Your task to perform on an android device: Open display settings Image 0: 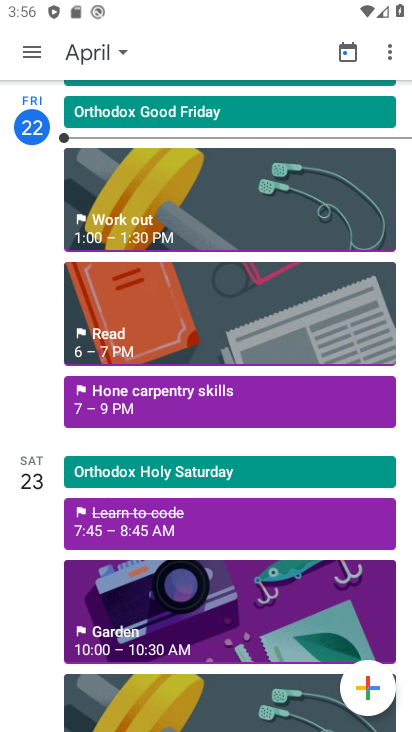
Step 0: press home button
Your task to perform on an android device: Open display settings Image 1: 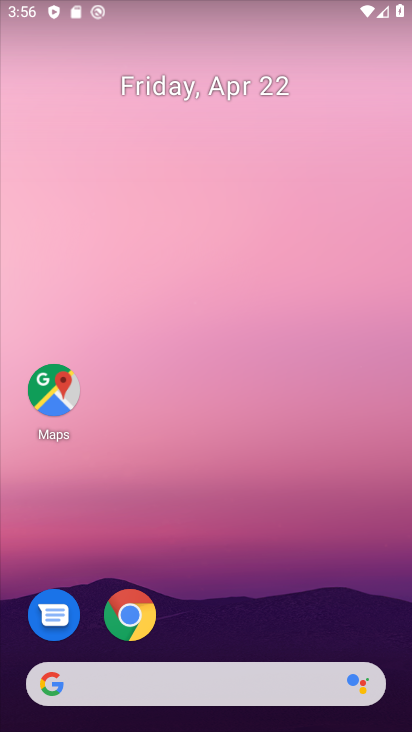
Step 1: drag from (246, 580) to (285, 131)
Your task to perform on an android device: Open display settings Image 2: 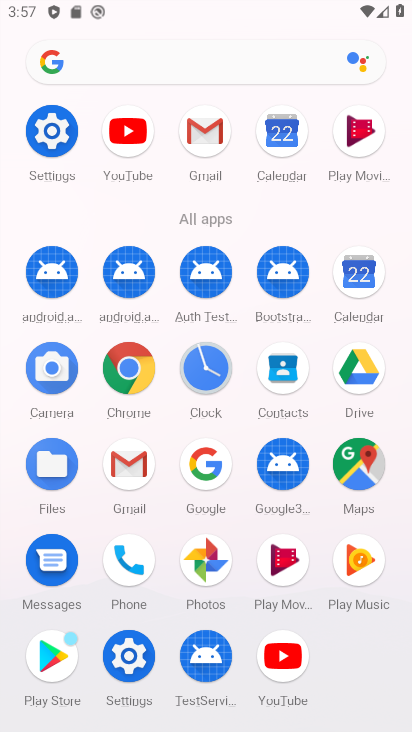
Step 2: click (65, 133)
Your task to perform on an android device: Open display settings Image 3: 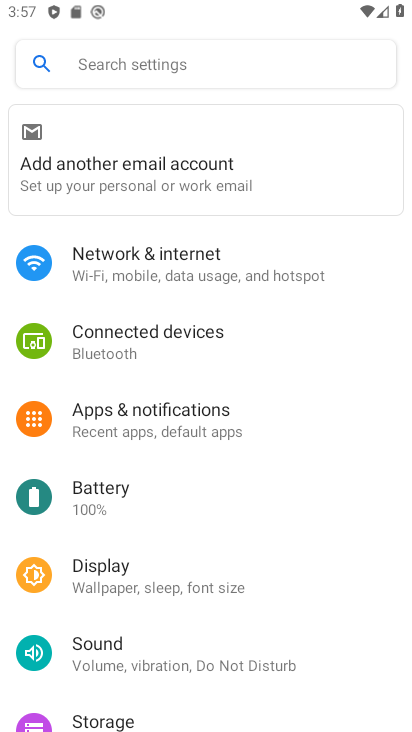
Step 3: click (151, 581)
Your task to perform on an android device: Open display settings Image 4: 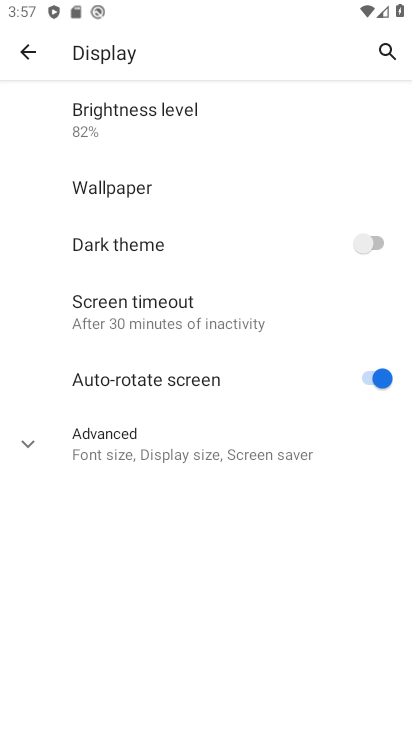
Step 4: task complete